Your task to perform on an android device: Open the map Image 0: 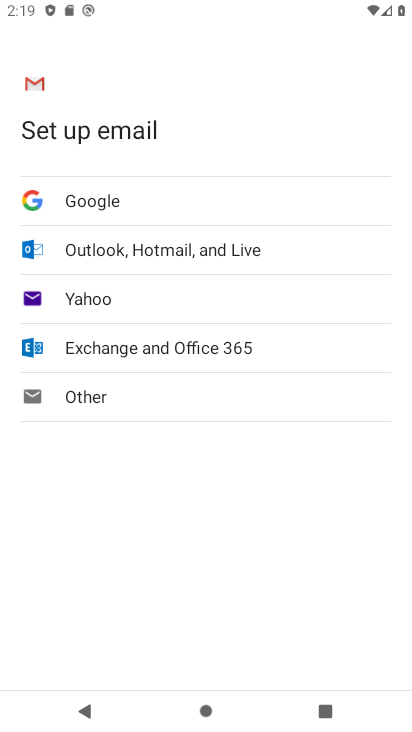
Step 0: press home button
Your task to perform on an android device: Open the map Image 1: 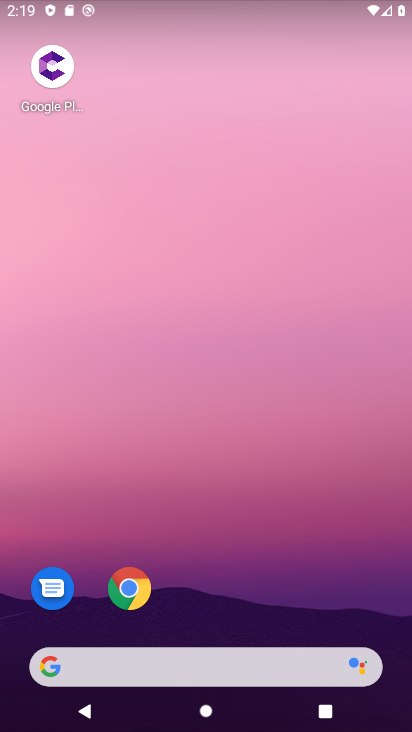
Step 1: drag from (224, 530) to (109, 4)
Your task to perform on an android device: Open the map Image 2: 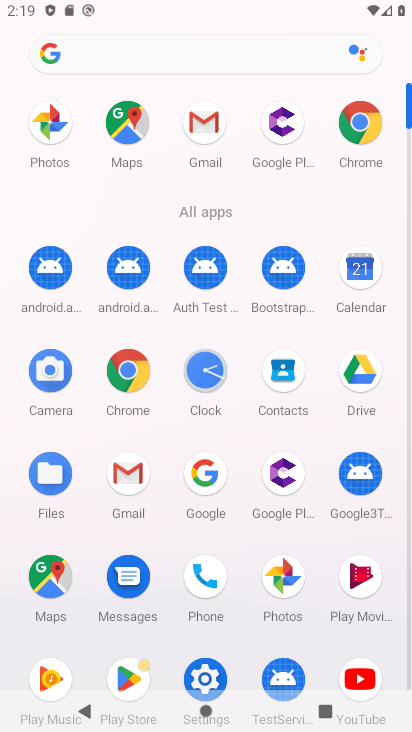
Step 2: click (127, 125)
Your task to perform on an android device: Open the map Image 3: 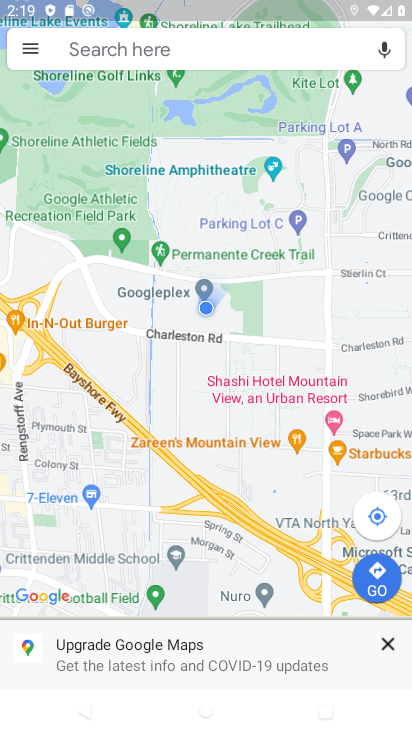
Step 3: task complete